Your task to perform on an android device: Open the phone app and click the voicemail tab. Image 0: 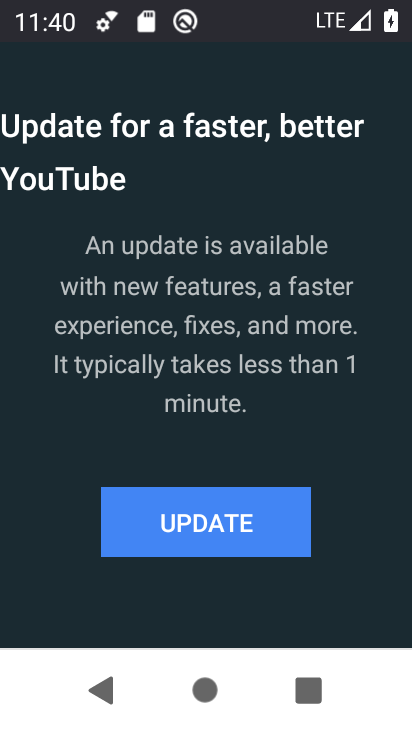
Step 0: press home button
Your task to perform on an android device: Open the phone app and click the voicemail tab. Image 1: 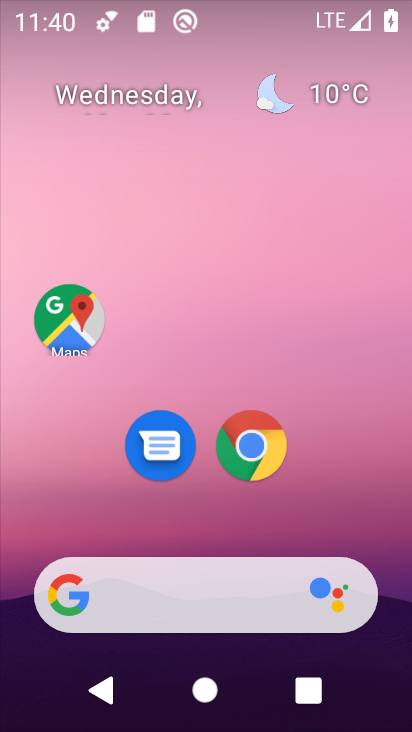
Step 1: drag from (206, 433) to (377, 49)
Your task to perform on an android device: Open the phone app and click the voicemail tab. Image 2: 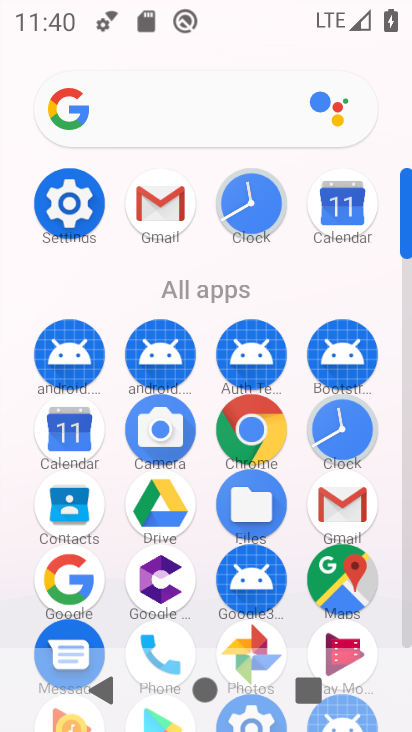
Step 2: click (155, 634)
Your task to perform on an android device: Open the phone app and click the voicemail tab. Image 3: 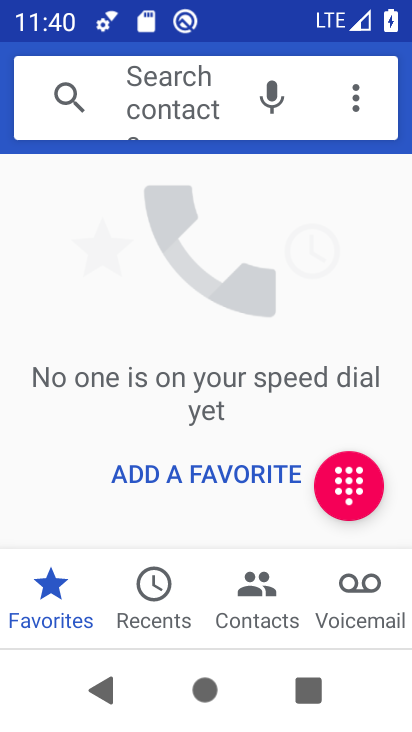
Step 3: click (370, 604)
Your task to perform on an android device: Open the phone app and click the voicemail tab. Image 4: 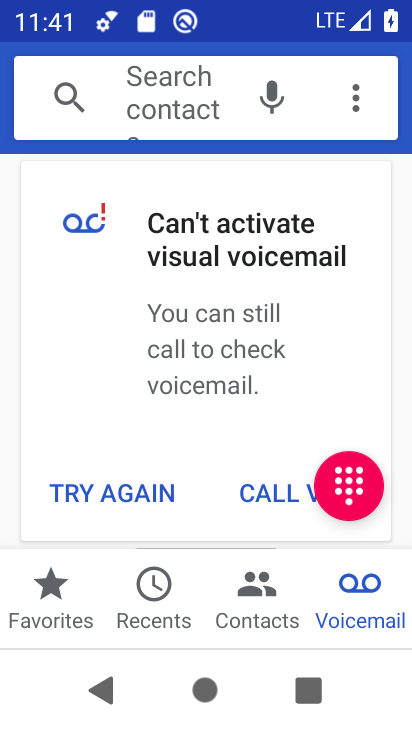
Step 4: task complete